Your task to perform on an android device: delete location history Image 0: 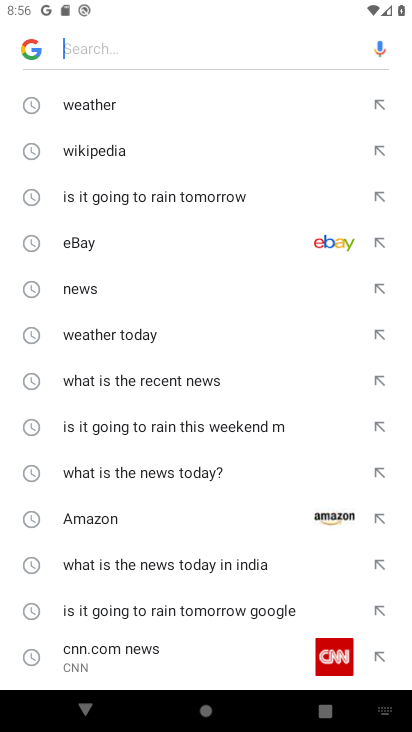
Step 0: press back button
Your task to perform on an android device: delete location history Image 1: 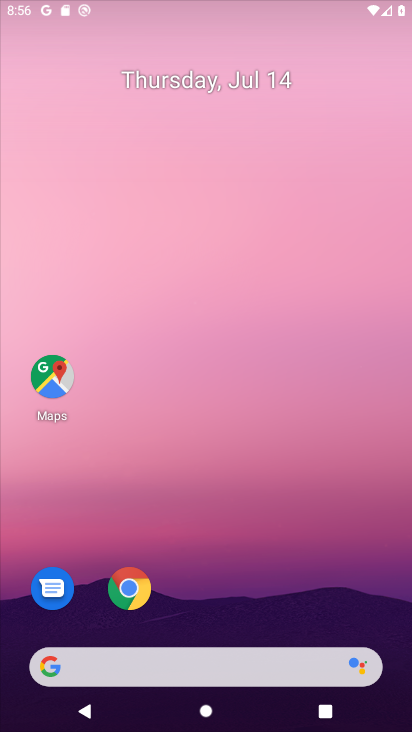
Step 1: press home button
Your task to perform on an android device: delete location history Image 2: 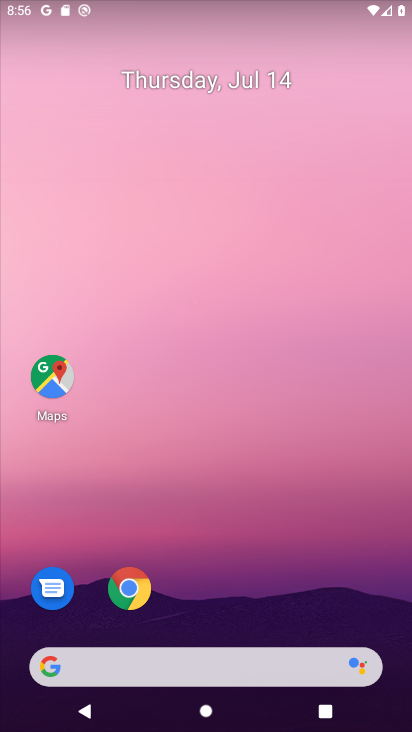
Step 2: click (117, 228)
Your task to perform on an android device: delete location history Image 3: 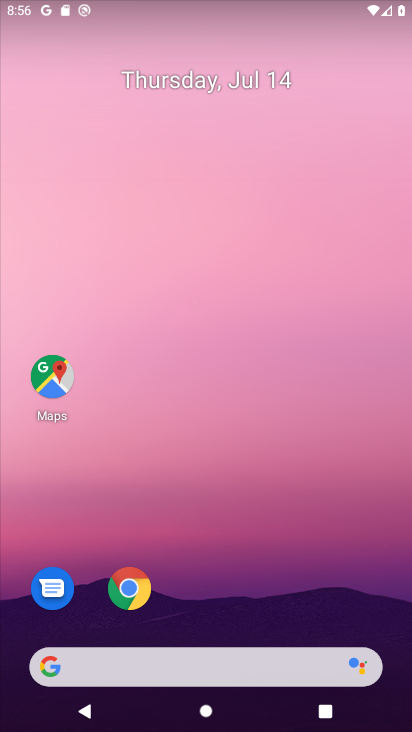
Step 3: drag from (277, 612) to (226, 122)
Your task to perform on an android device: delete location history Image 4: 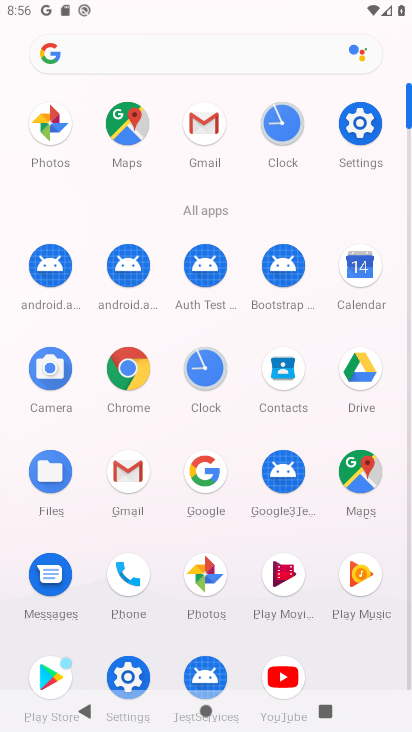
Step 4: click (358, 130)
Your task to perform on an android device: delete location history Image 5: 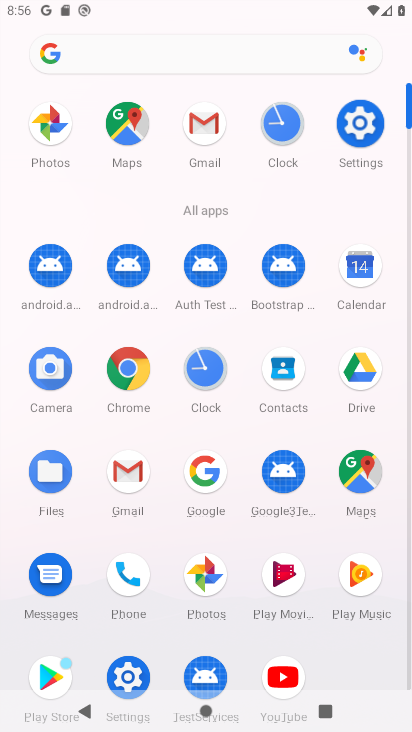
Step 5: click (358, 130)
Your task to perform on an android device: delete location history Image 6: 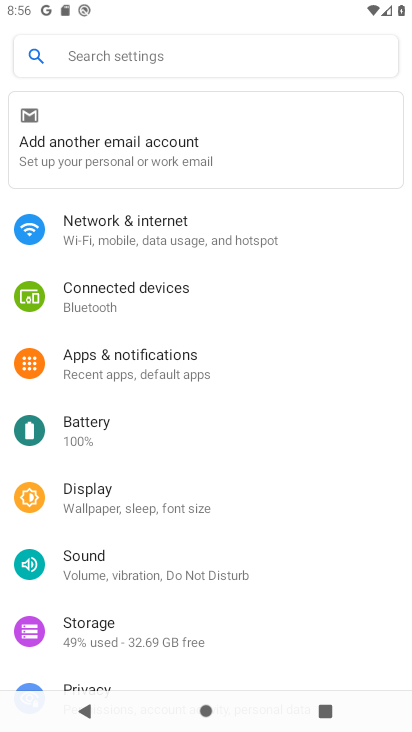
Step 6: drag from (124, 516) to (123, 274)
Your task to perform on an android device: delete location history Image 7: 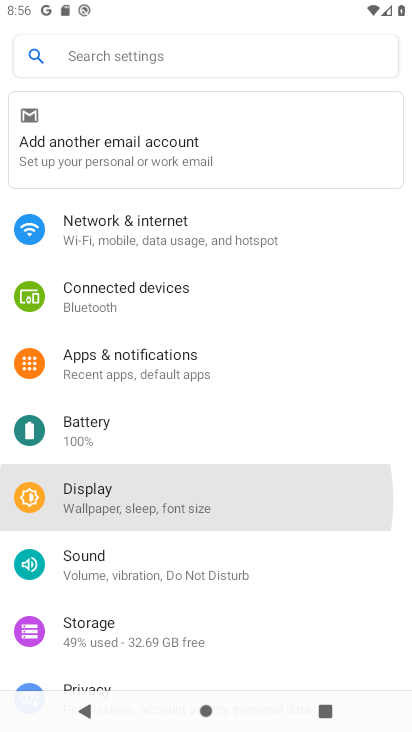
Step 7: drag from (151, 496) to (143, 335)
Your task to perform on an android device: delete location history Image 8: 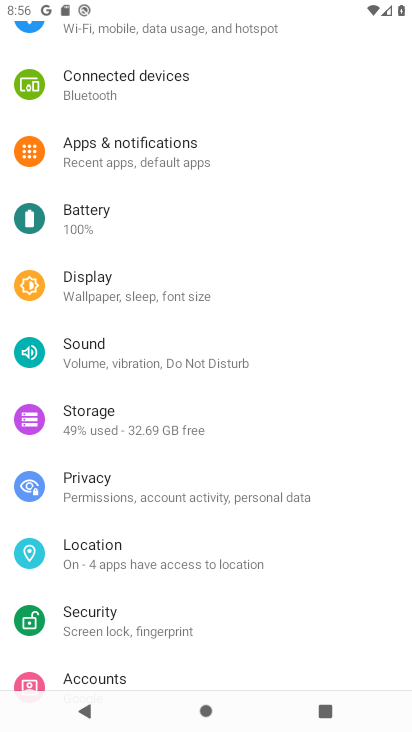
Step 8: click (88, 560)
Your task to perform on an android device: delete location history Image 9: 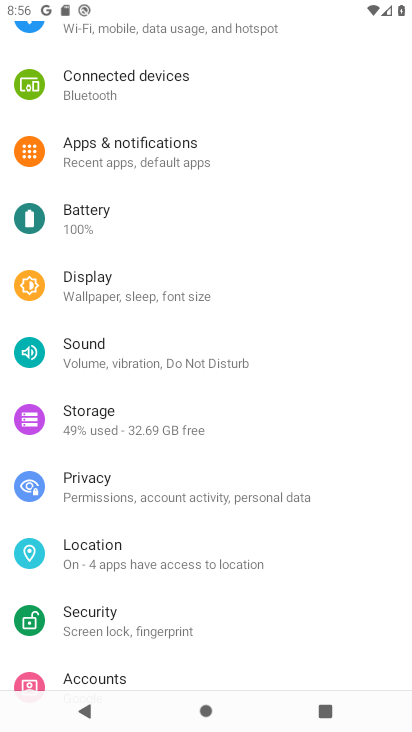
Step 9: click (85, 559)
Your task to perform on an android device: delete location history Image 10: 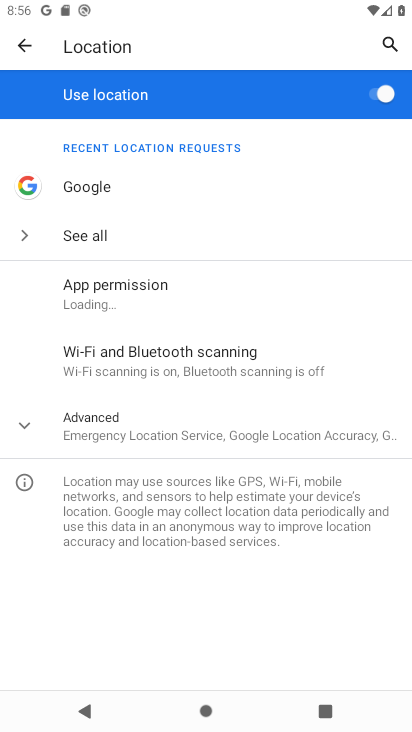
Step 10: click (106, 419)
Your task to perform on an android device: delete location history Image 11: 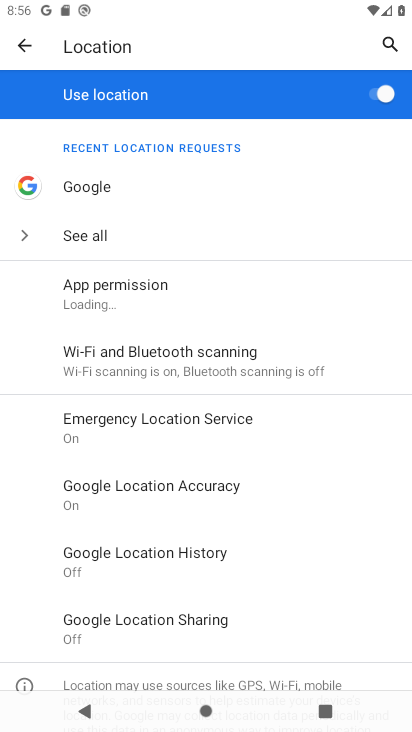
Step 11: click (131, 555)
Your task to perform on an android device: delete location history Image 12: 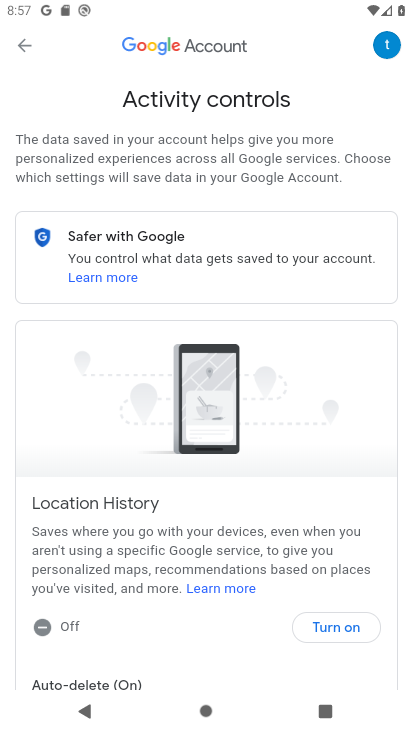
Step 12: task complete